Your task to perform on an android device: delete the emails in spam in the gmail app Image 0: 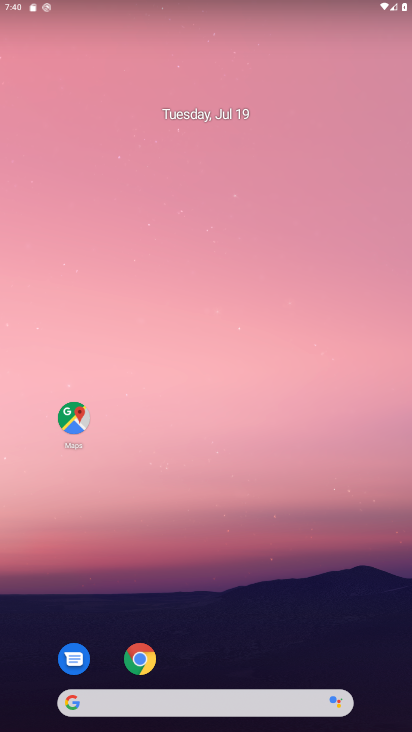
Step 0: drag from (235, 651) to (147, 38)
Your task to perform on an android device: delete the emails in spam in the gmail app Image 1: 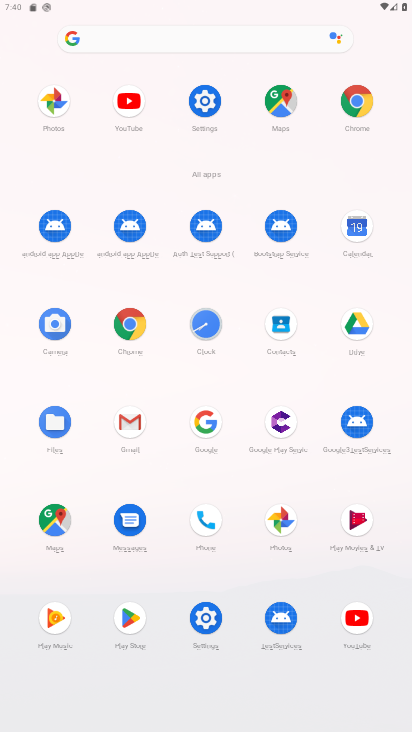
Step 1: click (134, 487)
Your task to perform on an android device: delete the emails in spam in the gmail app Image 2: 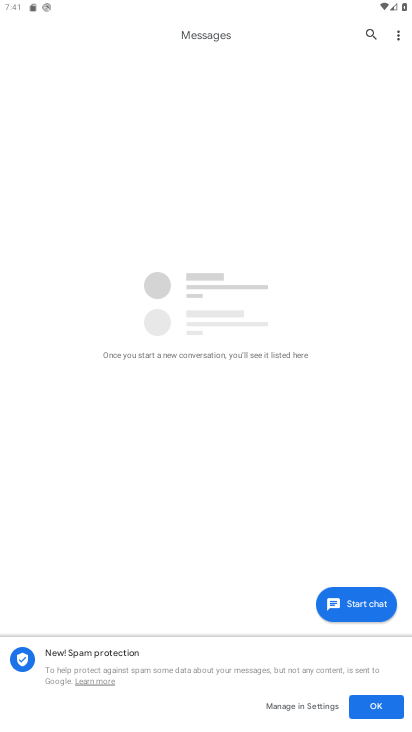
Step 2: press home button
Your task to perform on an android device: delete the emails in spam in the gmail app Image 3: 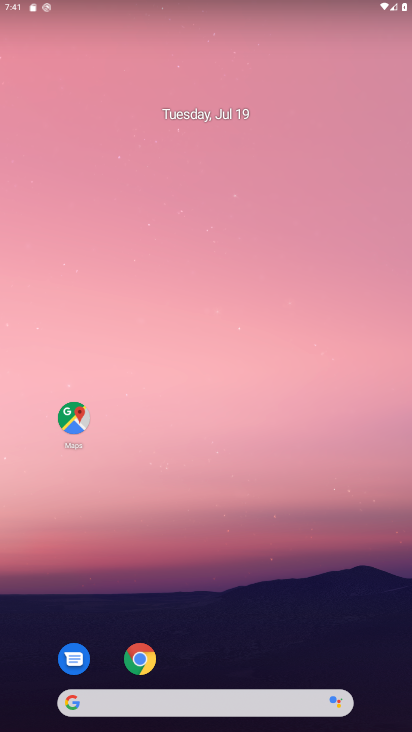
Step 3: drag from (217, 622) to (121, 9)
Your task to perform on an android device: delete the emails in spam in the gmail app Image 4: 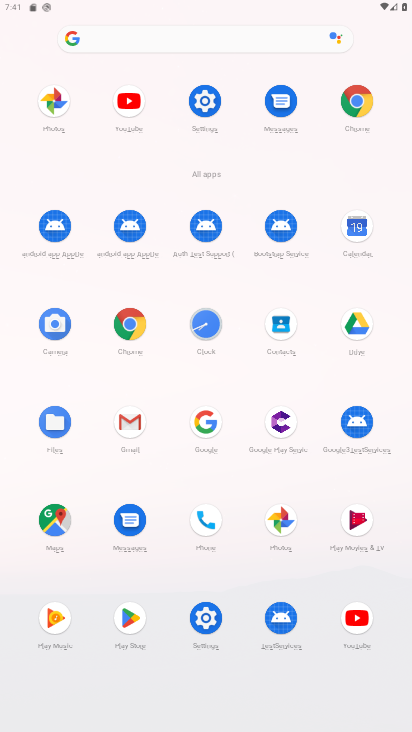
Step 4: click (122, 409)
Your task to perform on an android device: delete the emails in spam in the gmail app Image 5: 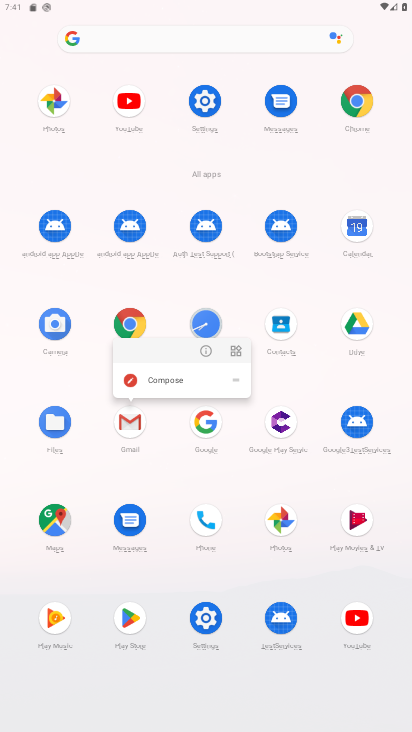
Step 5: click (123, 431)
Your task to perform on an android device: delete the emails in spam in the gmail app Image 6: 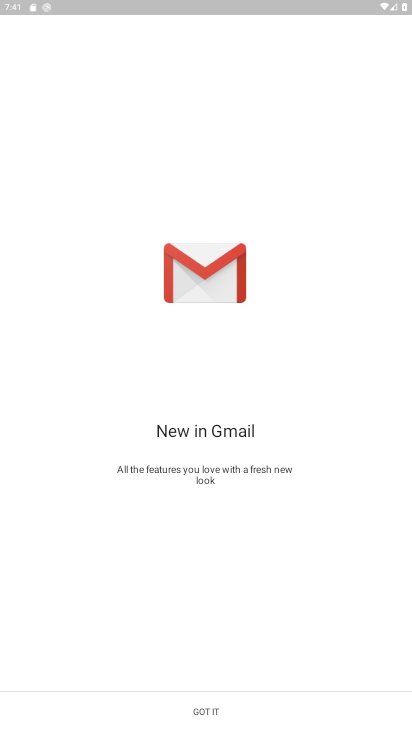
Step 6: click (201, 710)
Your task to perform on an android device: delete the emails in spam in the gmail app Image 7: 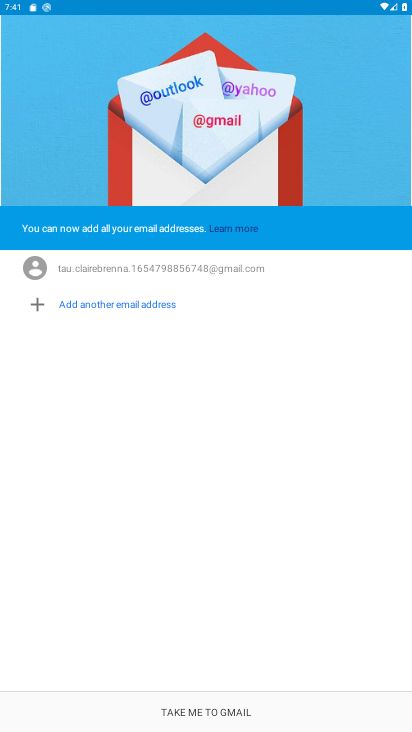
Step 7: click (185, 708)
Your task to perform on an android device: delete the emails in spam in the gmail app Image 8: 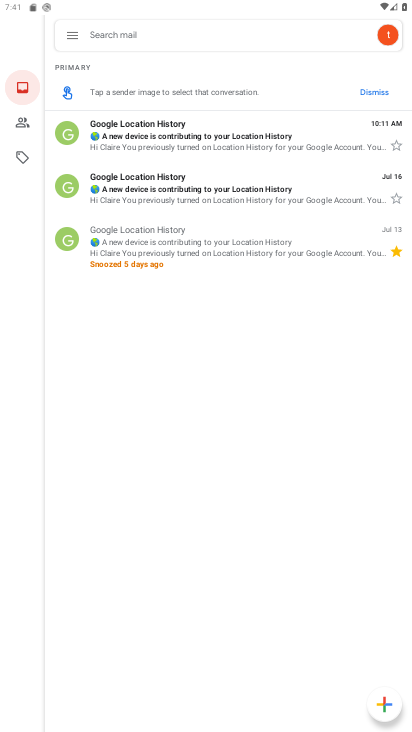
Step 8: click (68, 39)
Your task to perform on an android device: delete the emails in spam in the gmail app Image 9: 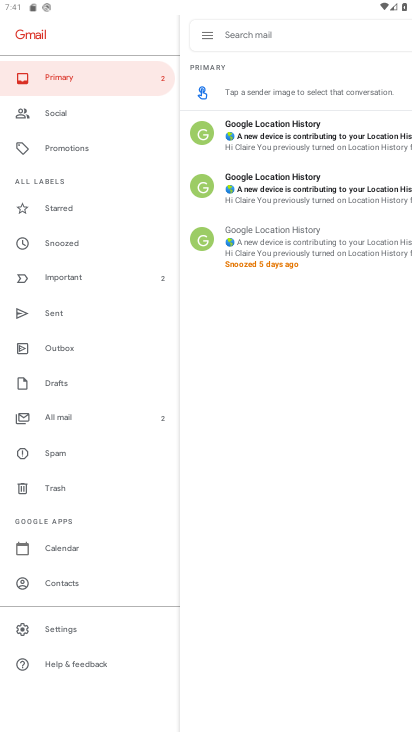
Step 9: click (47, 453)
Your task to perform on an android device: delete the emails in spam in the gmail app Image 10: 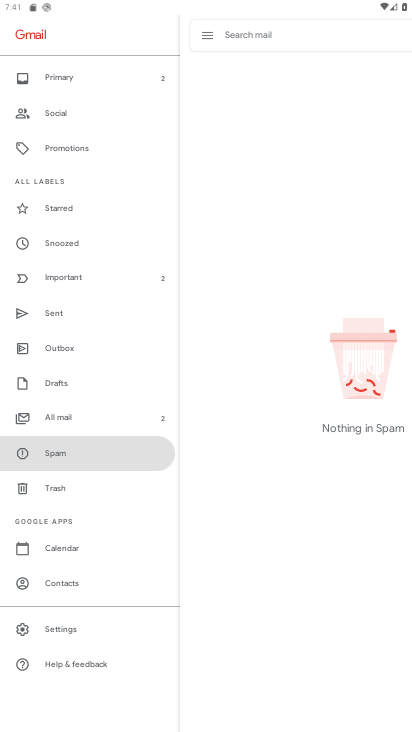
Step 10: task complete